Your task to perform on an android device: open a new tab in the chrome app Image 0: 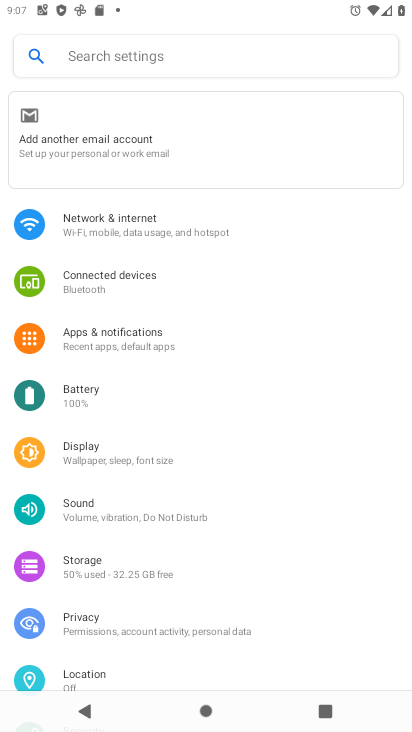
Step 0: press home button
Your task to perform on an android device: open a new tab in the chrome app Image 1: 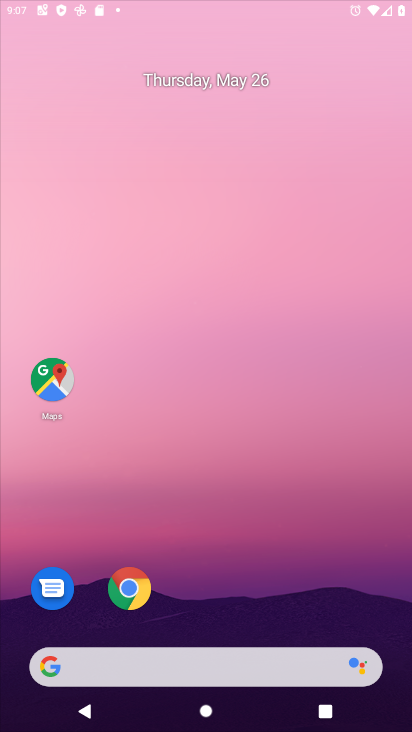
Step 1: drag from (387, 659) to (268, 62)
Your task to perform on an android device: open a new tab in the chrome app Image 2: 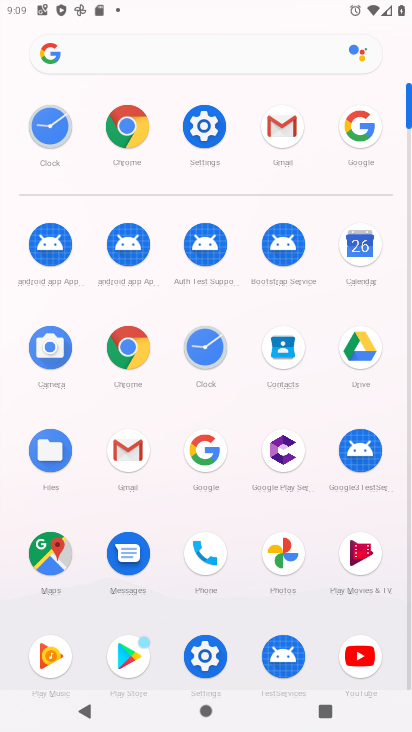
Step 2: click (283, 539)
Your task to perform on an android device: open a new tab in the chrome app Image 3: 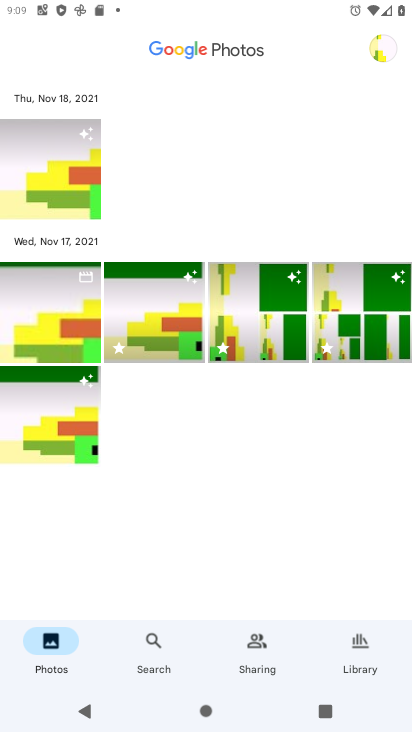
Step 3: press home button
Your task to perform on an android device: open a new tab in the chrome app Image 4: 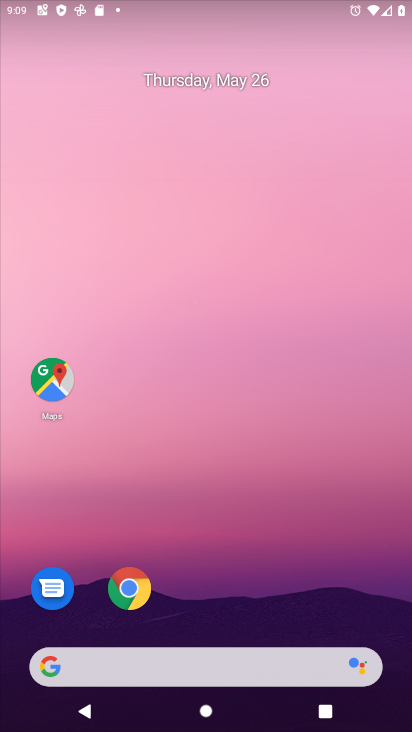
Step 4: drag from (378, 585) to (187, 0)
Your task to perform on an android device: open a new tab in the chrome app Image 5: 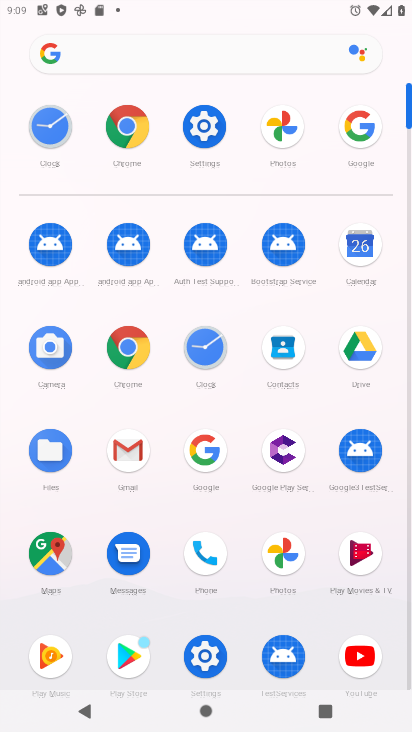
Step 5: click (144, 129)
Your task to perform on an android device: open a new tab in the chrome app Image 6: 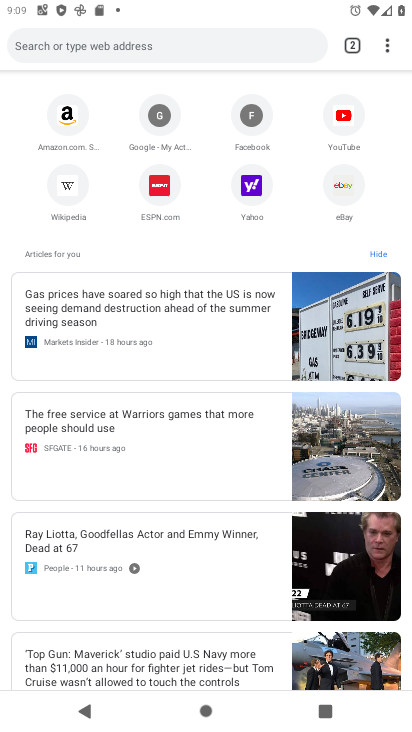
Step 6: click (379, 31)
Your task to perform on an android device: open a new tab in the chrome app Image 7: 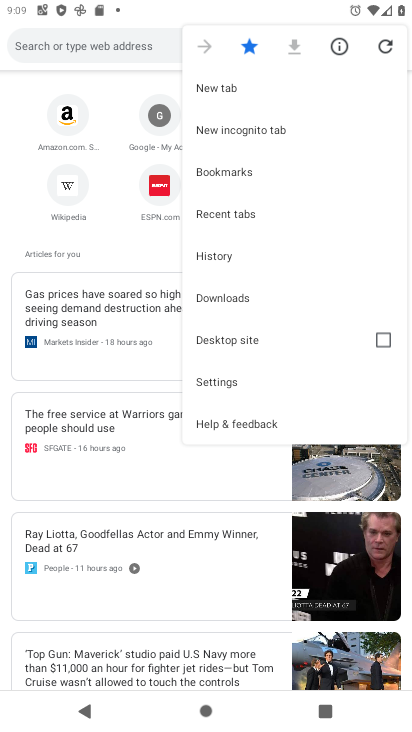
Step 7: click (238, 86)
Your task to perform on an android device: open a new tab in the chrome app Image 8: 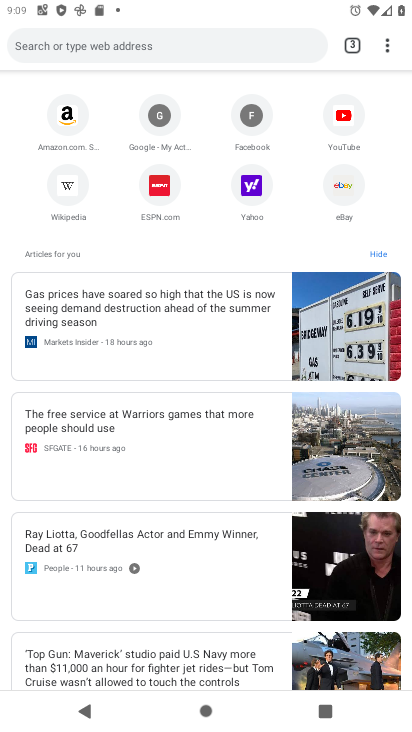
Step 8: task complete